Your task to perform on an android device: change the clock display to analog Image 0: 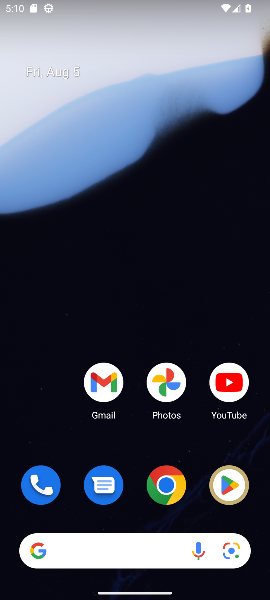
Step 0: drag from (127, 450) to (136, 164)
Your task to perform on an android device: change the clock display to analog Image 1: 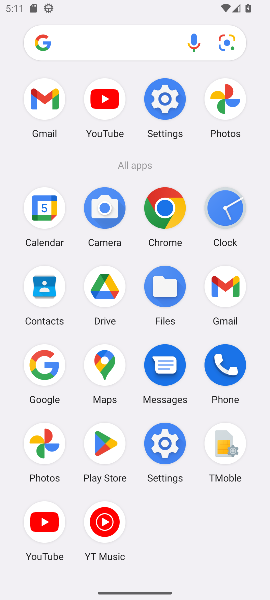
Step 1: click (222, 222)
Your task to perform on an android device: change the clock display to analog Image 2: 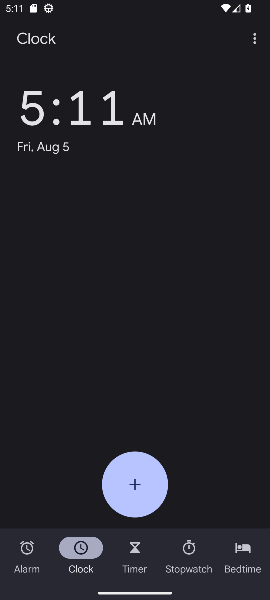
Step 2: click (256, 37)
Your task to perform on an android device: change the clock display to analog Image 3: 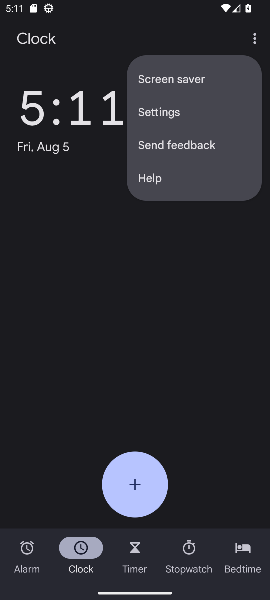
Step 3: click (189, 113)
Your task to perform on an android device: change the clock display to analog Image 4: 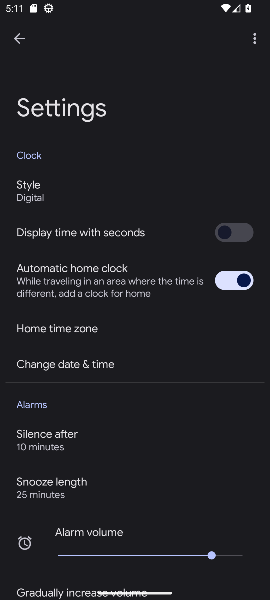
Step 4: click (126, 184)
Your task to perform on an android device: change the clock display to analog Image 5: 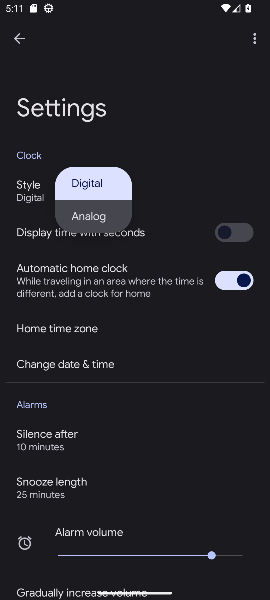
Step 5: click (87, 219)
Your task to perform on an android device: change the clock display to analog Image 6: 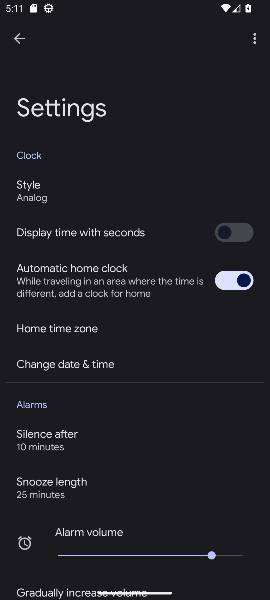
Step 6: task complete